Your task to perform on an android device: uninstall "Gmail" Image 0: 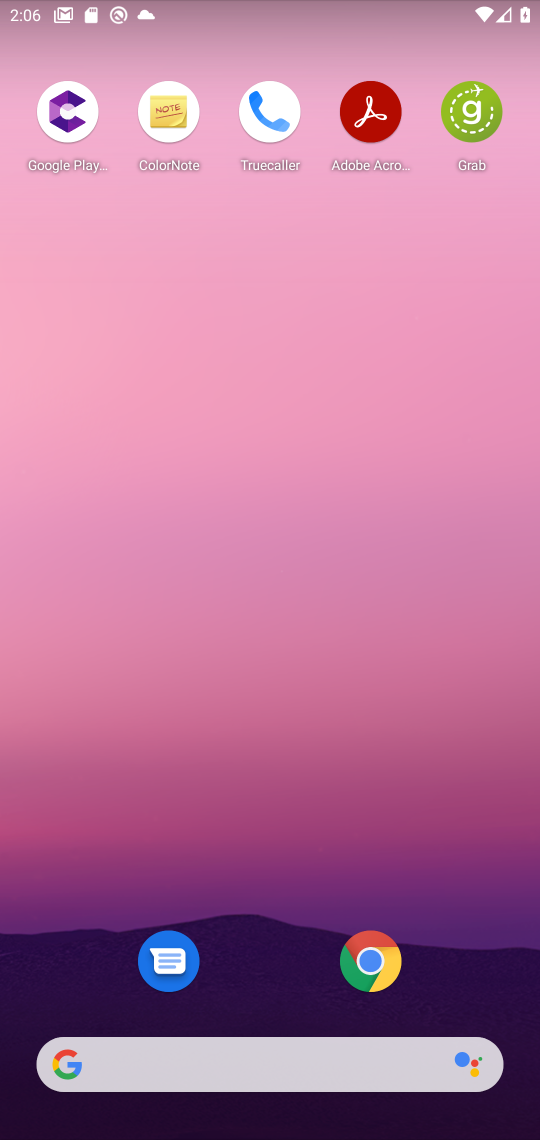
Step 0: press home button
Your task to perform on an android device: uninstall "Gmail" Image 1: 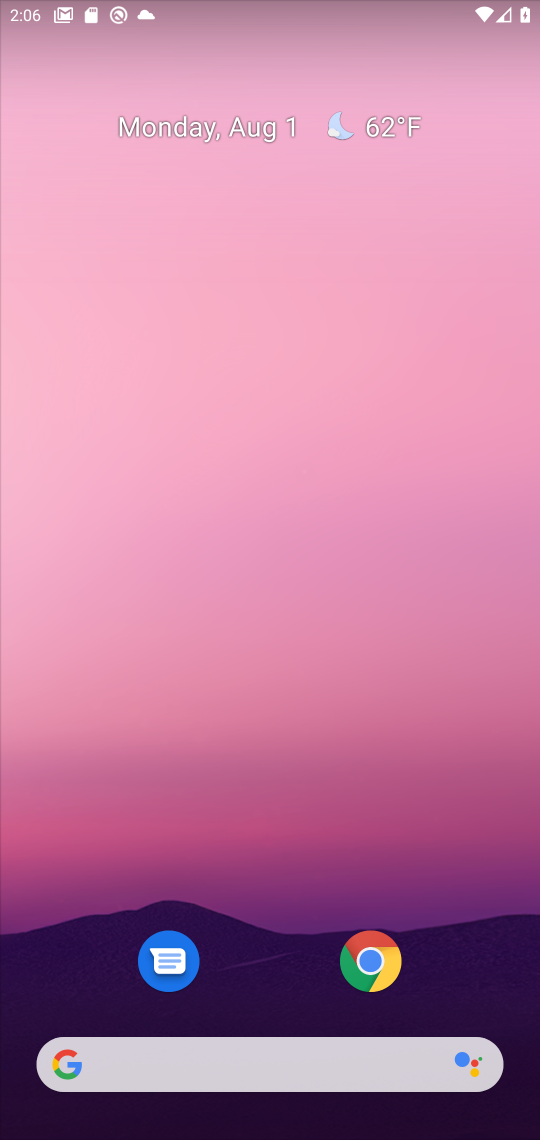
Step 1: drag from (290, 909) to (391, 138)
Your task to perform on an android device: uninstall "Gmail" Image 2: 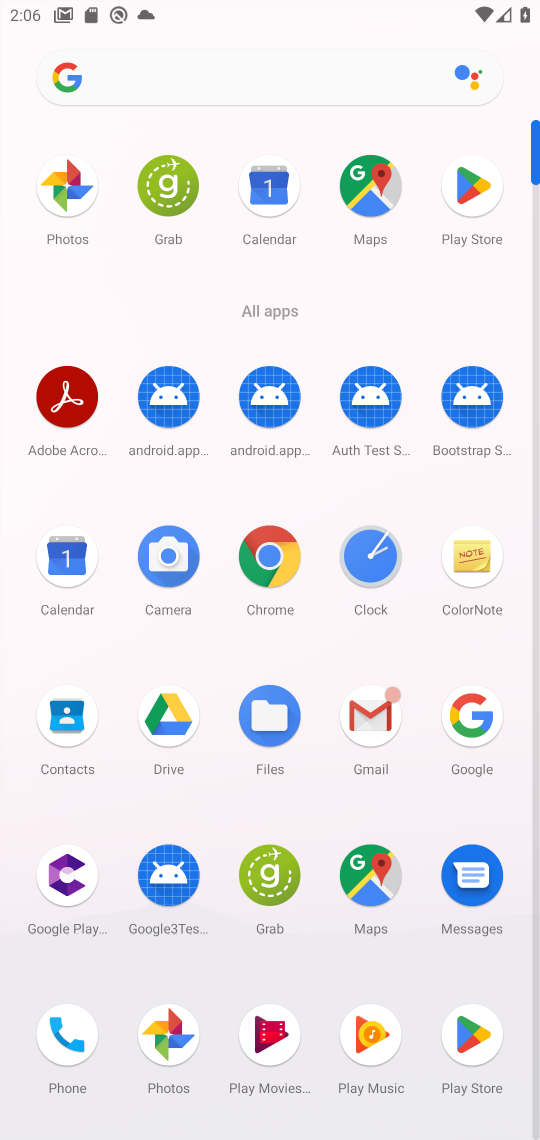
Step 2: click (458, 173)
Your task to perform on an android device: uninstall "Gmail" Image 3: 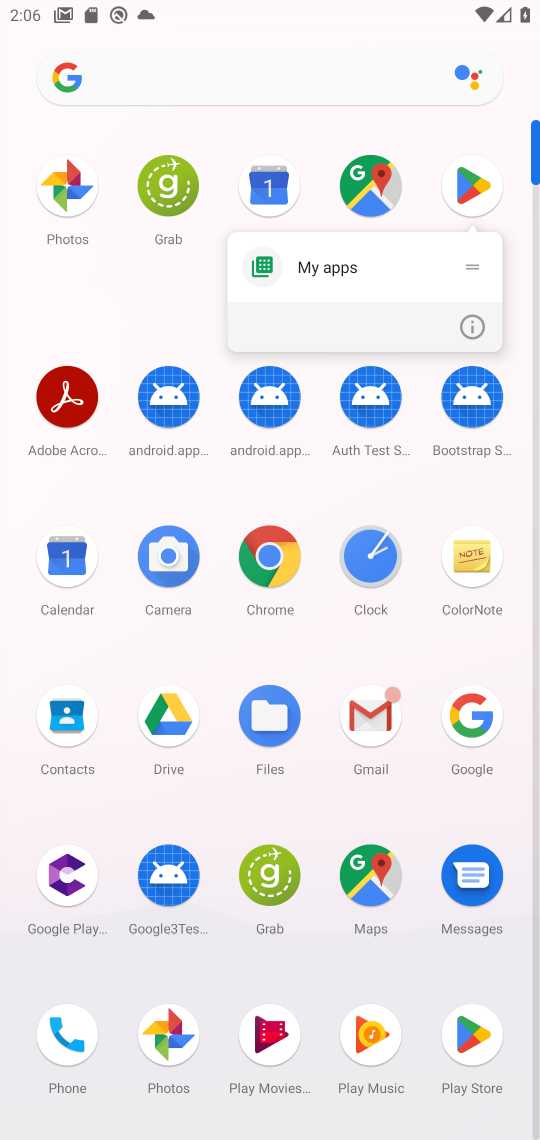
Step 3: click (459, 191)
Your task to perform on an android device: uninstall "Gmail" Image 4: 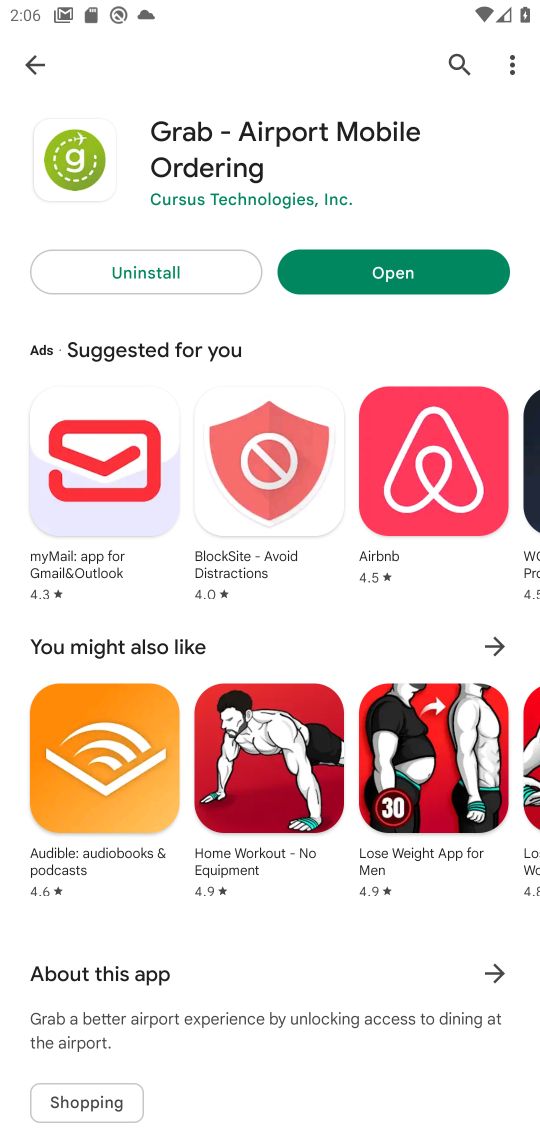
Step 4: click (460, 43)
Your task to perform on an android device: uninstall "Gmail" Image 5: 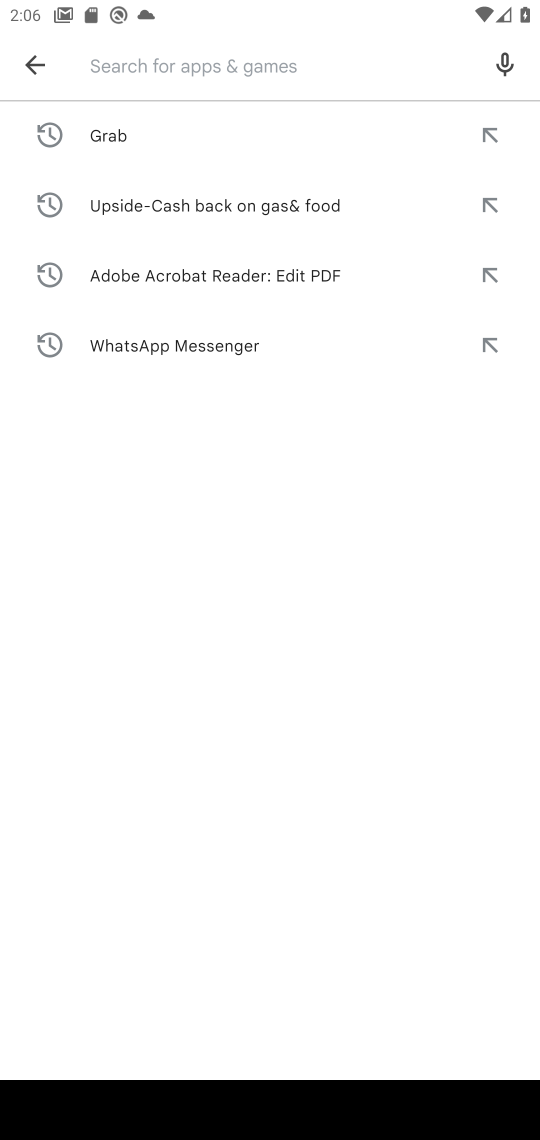
Step 5: type "Gmail"
Your task to perform on an android device: uninstall "Gmail" Image 6: 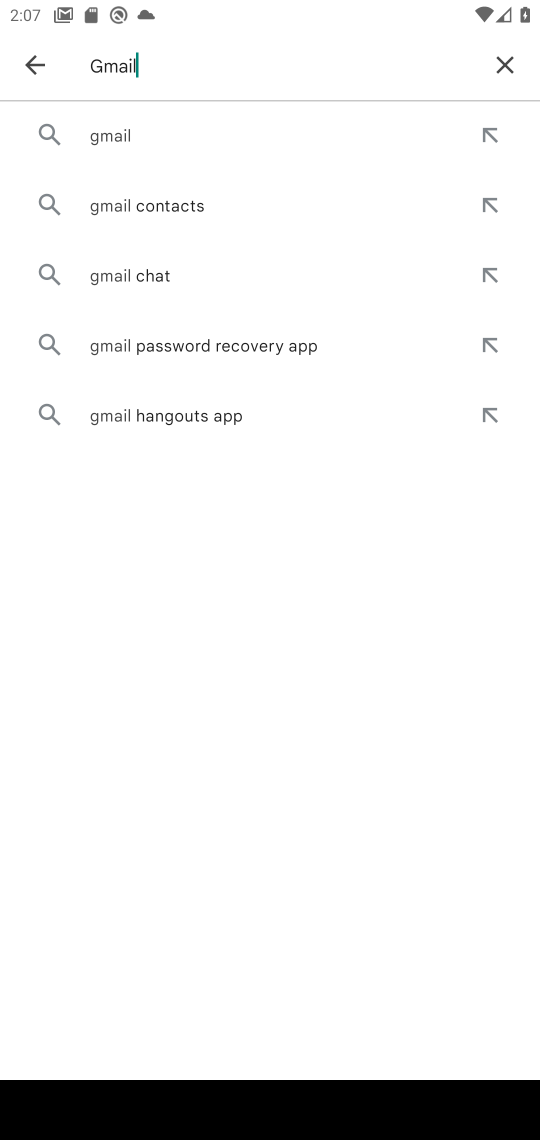
Step 6: click (163, 150)
Your task to perform on an android device: uninstall "Gmail" Image 7: 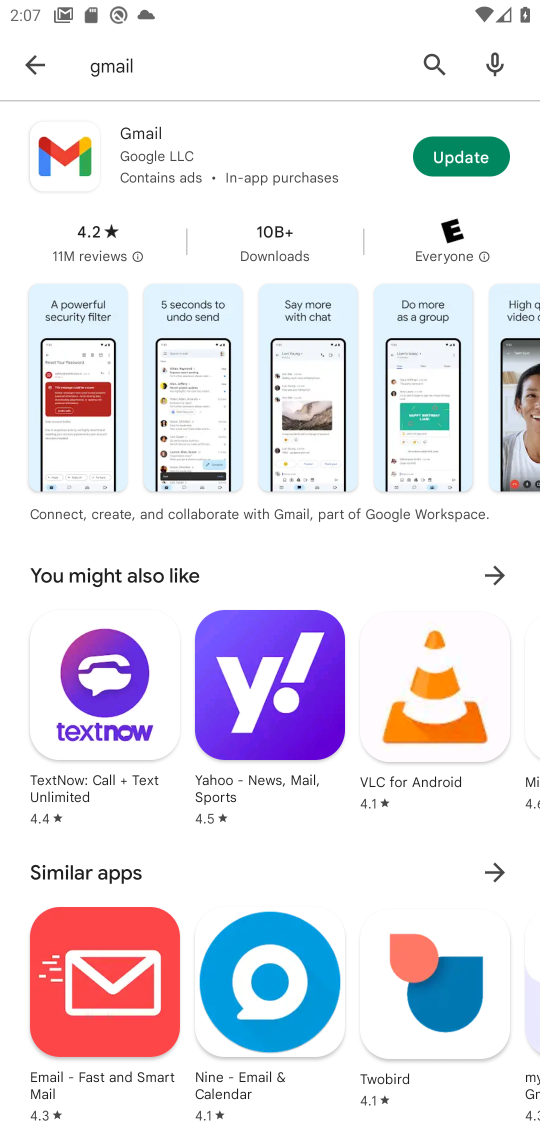
Step 7: click (178, 128)
Your task to perform on an android device: uninstall "Gmail" Image 8: 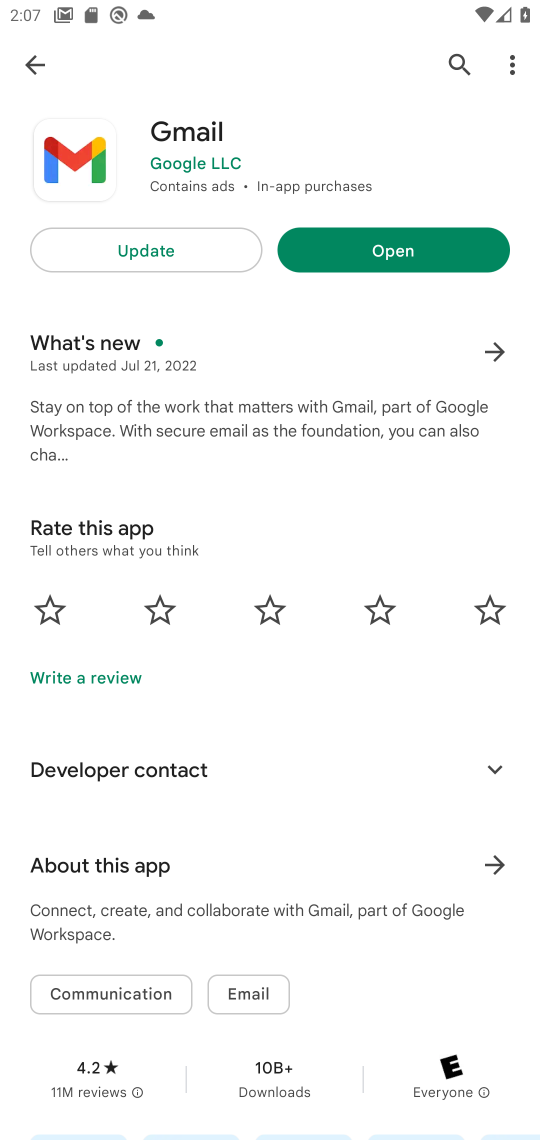
Step 8: task complete